Your task to perform on an android device: Clear the cart on amazon. Search for "lenovo thinkpad" on amazon, select the first entry, add it to the cart, then select checkout. Image 0: 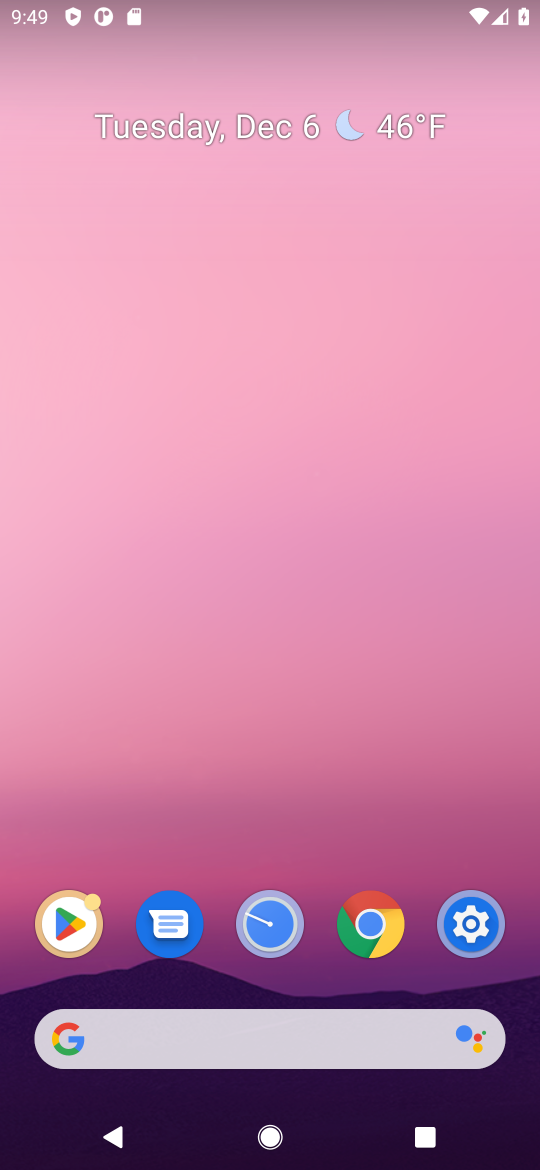
Step 0: click (200, 1030)
Your task to perform on an android device: Clear the cart on amazon. Search for "lenovo thinkpad" on amazon, select the first entry, add it to the cart, then select checkout. Image 1: 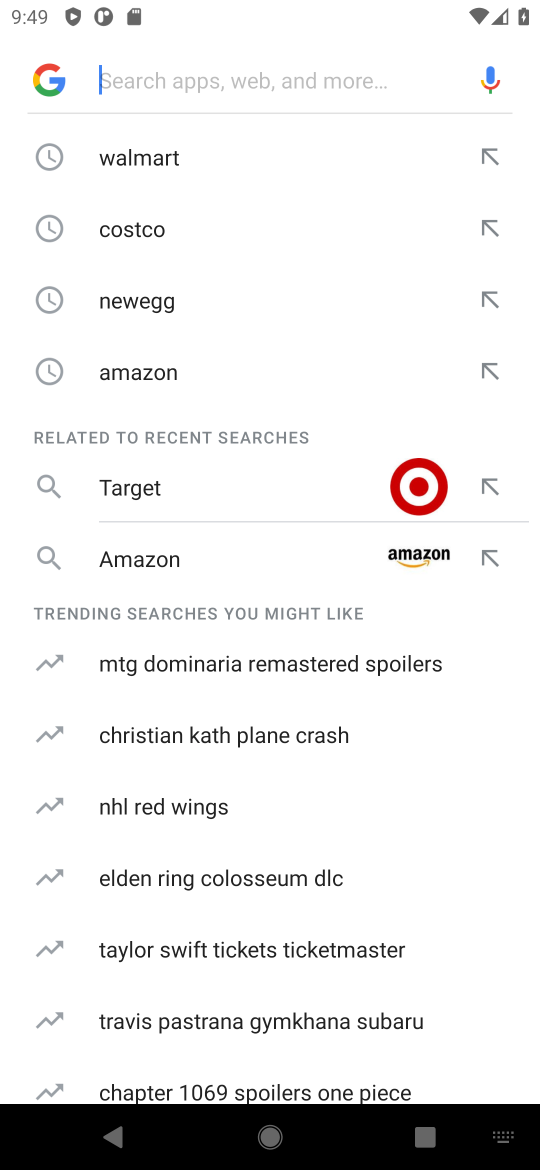
Step 1: type "lenovo"
Your task to perform on an android device: Clear the cart on amazon. Search for "lenovo thinkpad" on amazon, select the first entry, add it to the cart, then select checkout. Image 2: 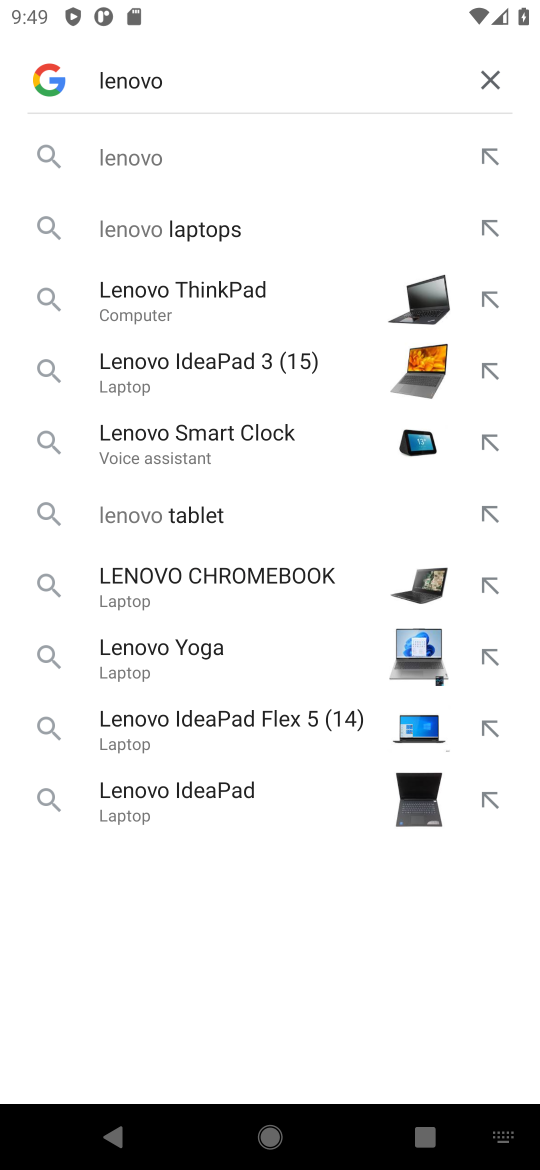
Step 2: click (142, 171)
Your task to perform on an android device: Clear the cart on amazon. Search for "lenovo thinkpad" on amazon, select the first entry, add it to the cart, then select checkout. Image 3: 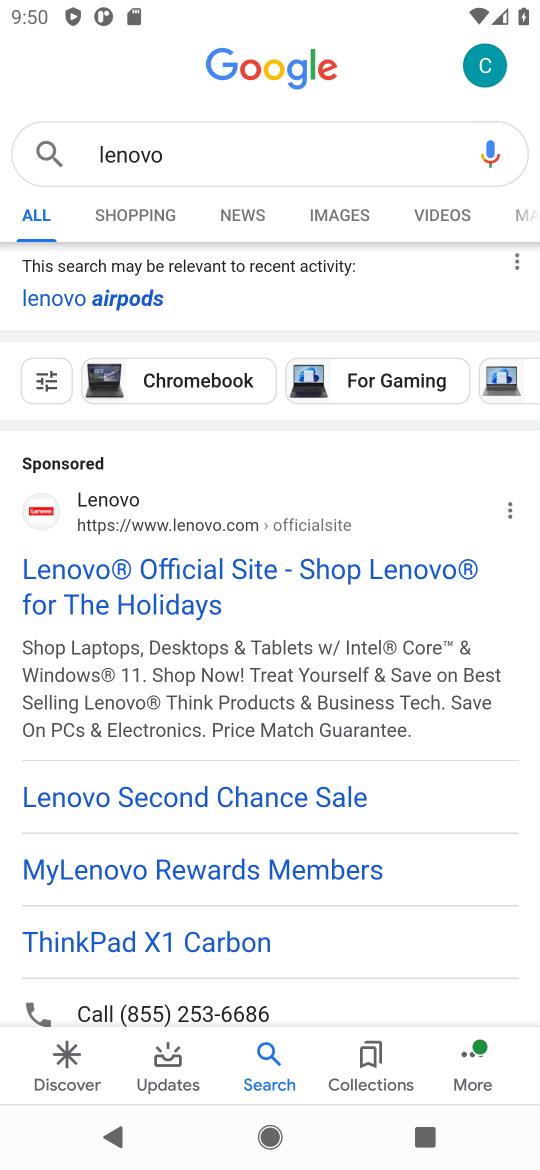
Step 3: click (149, 602)
Your task to perform on an android device: Clear the cart on amazon. Search for "lenovo thinkpad" on amazon, select the first entry, add it to the cart, then select checkout. Image 4: 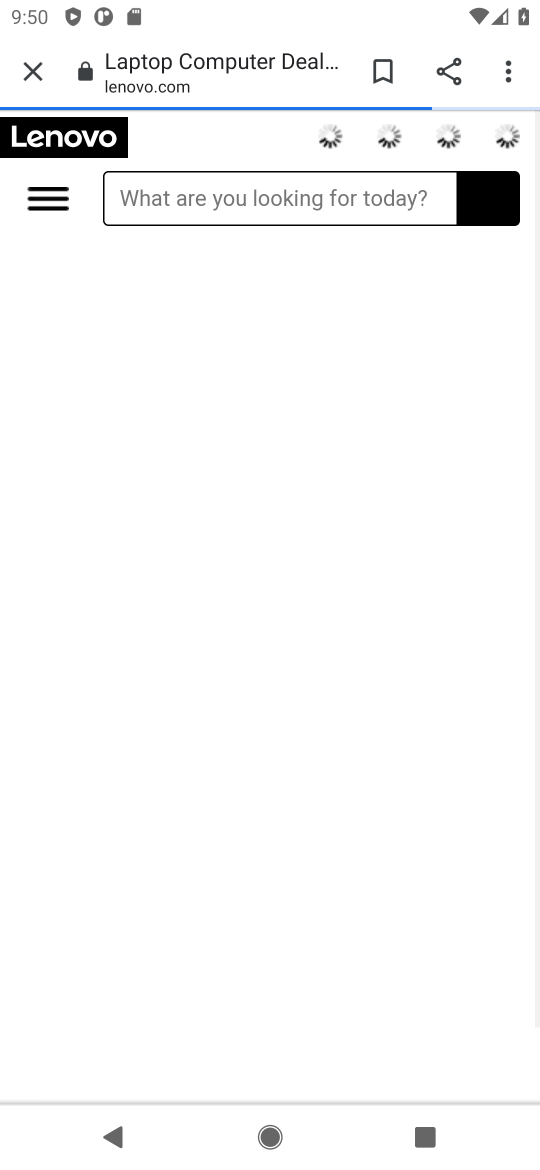
Step 4: click (149, 602)
Your task to perform on an android device: Clear the cart on amazon. Search for "lenovo thinkpad" on amazon, select the first entry, add it to the cart, then select checkout. Image 5: 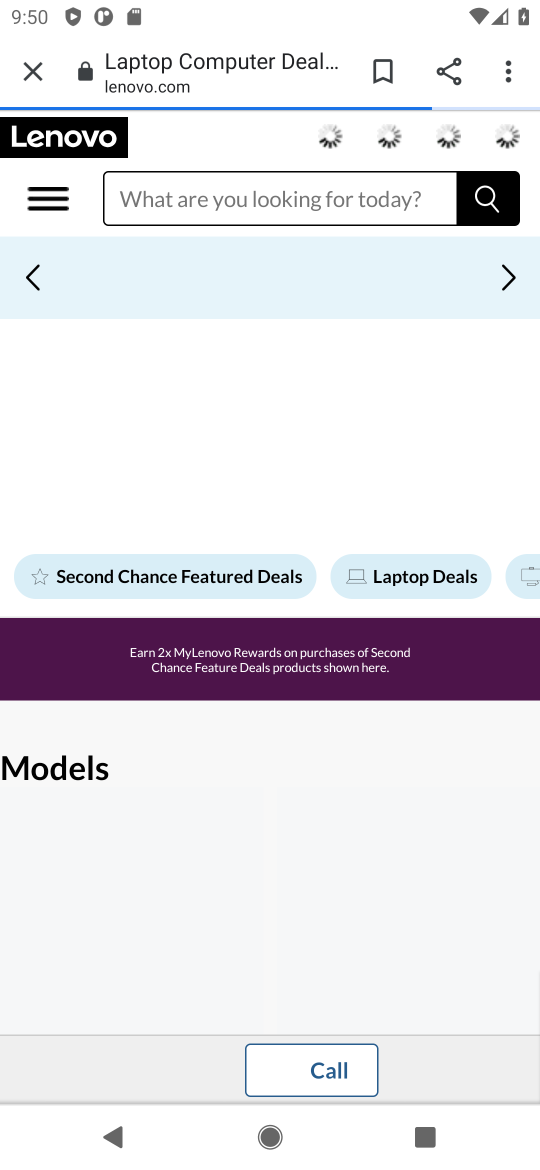
Step 5: click (245, 189)
Your task to perform on an android device: Clear the cart on amazon. Search for "lenovo thinkpad" on amazon, select the first entry, add it to the cart, then select checkout. Image 6: 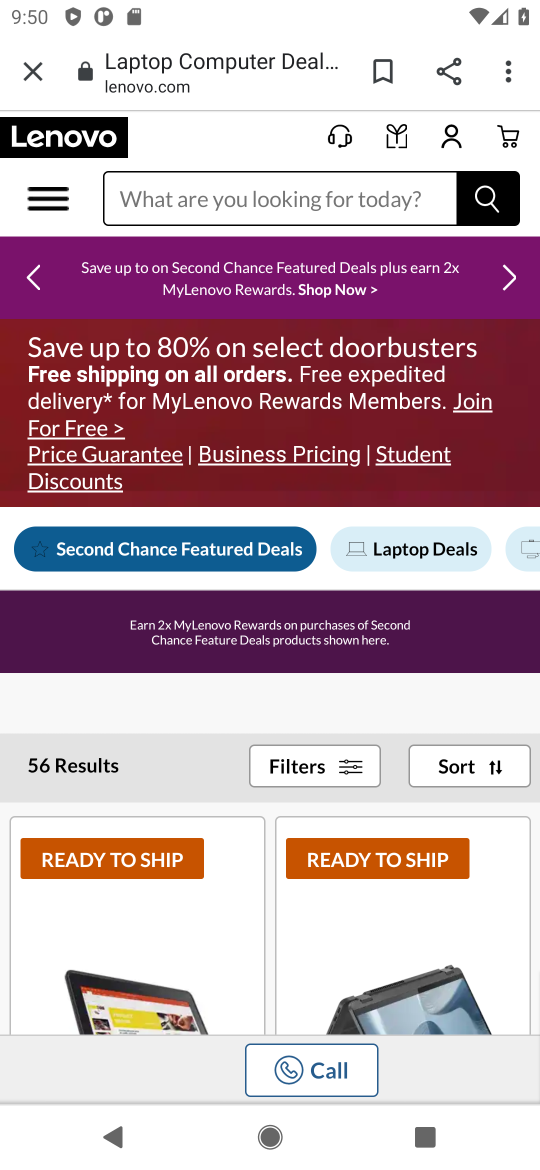
Step 6: type "lenovo thinkpad"
Your task to perform on an android device: Clear the cart on amazon. Search for "lenovo thinkpad" on amazon, select the first entry, add it to the cart, then select checkout. Image 7: 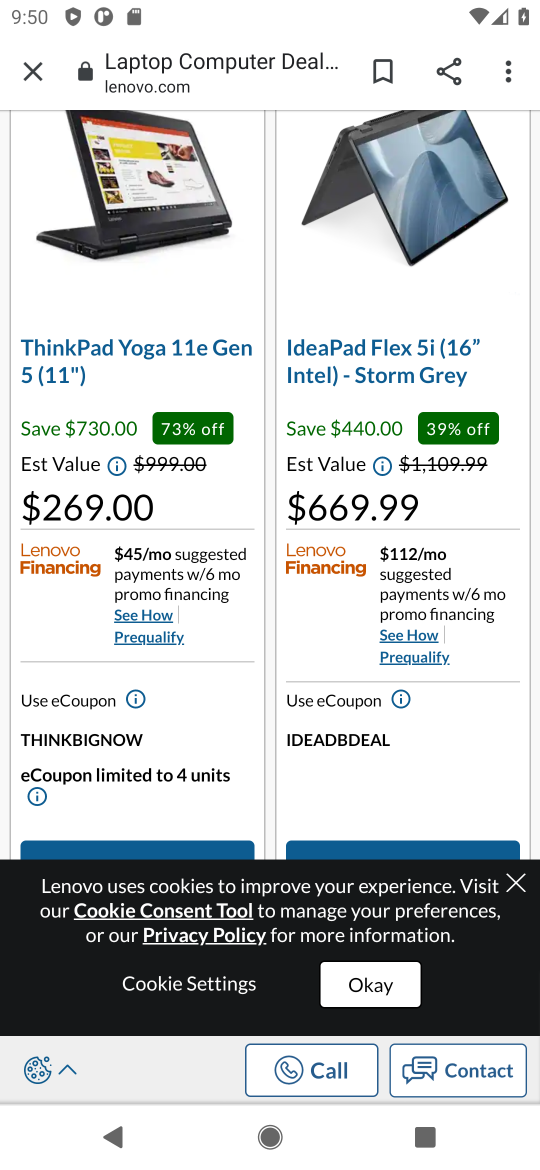
Step 7: task complete